Your task to perform on an android device: check android version Image 0: 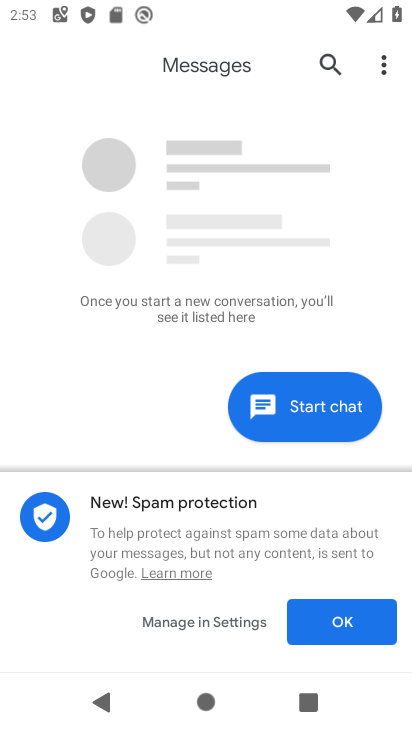
Step 0: press home button
Your task to perform on an android device: check android version Image 1: 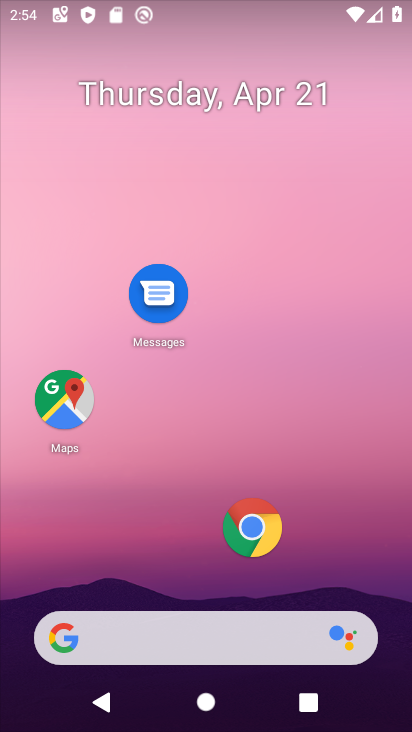
Step 1: drag from (222, 576) to (267, 293)
Your task to perform on an android device: check android version Image 2: 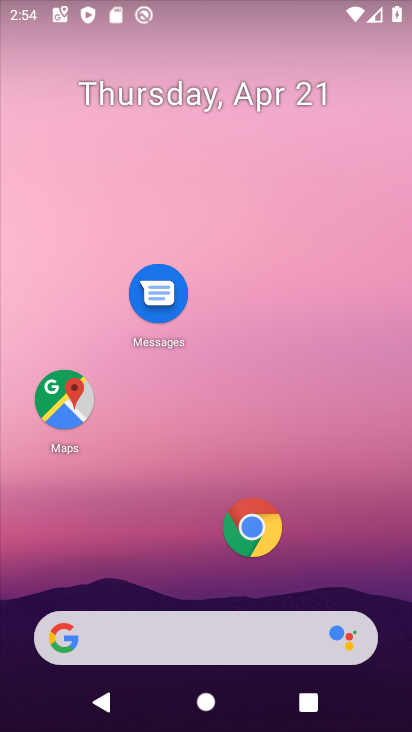
Step 2: drag from (207, 612) to (288, 258)
Your task to perform on an android device: check android version Image 3: 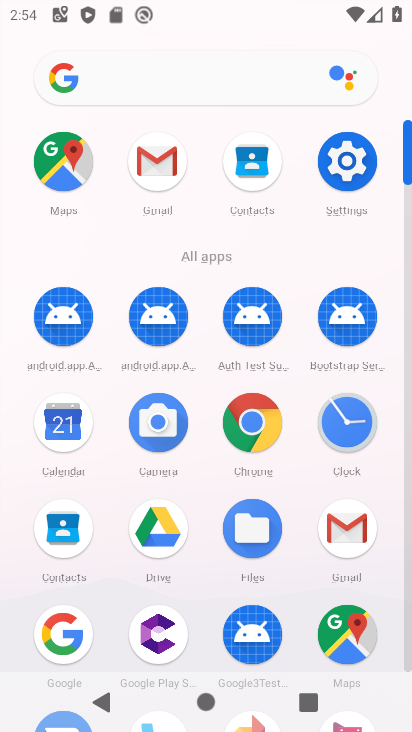
Step 3: click (352, 164)
Your task to perform on an android device: check android version Image 4: 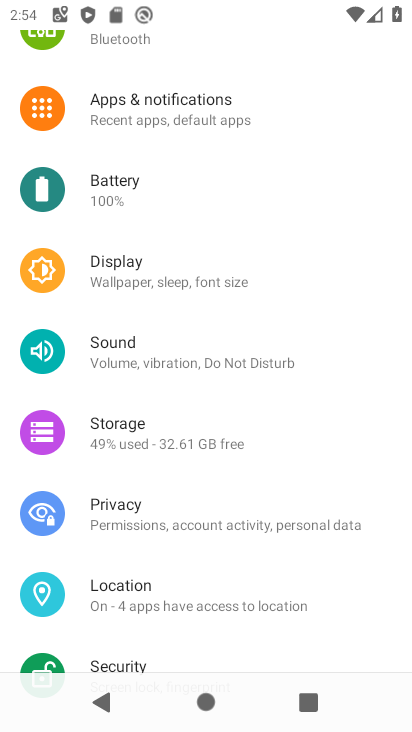
Step 4: drag from (163, 653) to (211, 343)
Your task to perform on an android device: check android version Image 5: 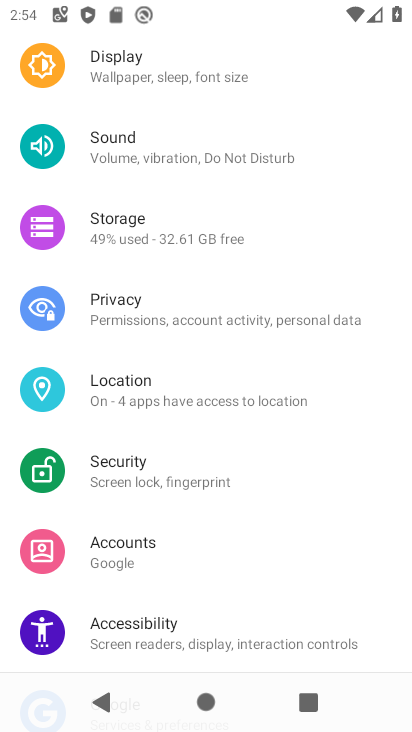
Step 5: drag from (193, 593) to (231, 377)
Your task to perform on an android device: check android version Image 6: 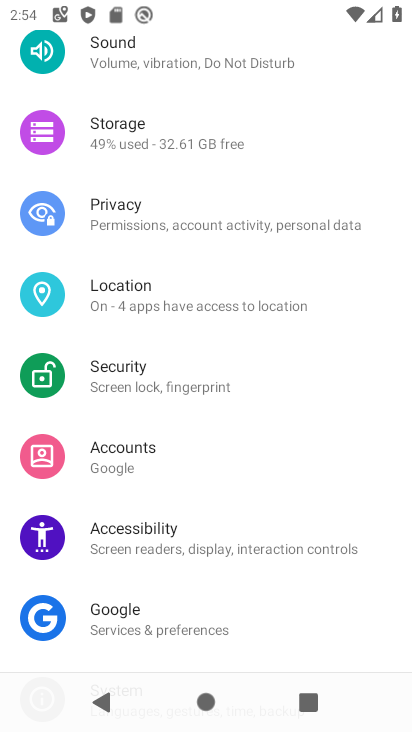
Step 6: drag from (168, 634) to (193, 419)
Your task to perform on an android device: check android version Image 7: 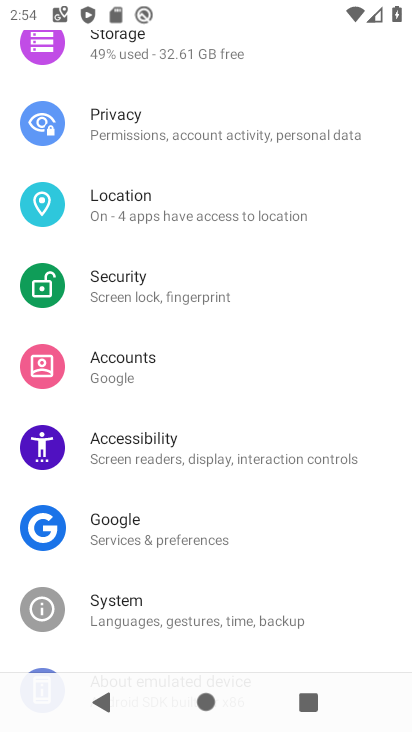
Step 7: drag from (179, 555) to (226, 393)
Your task to perform on an android device: check android version Image 8: 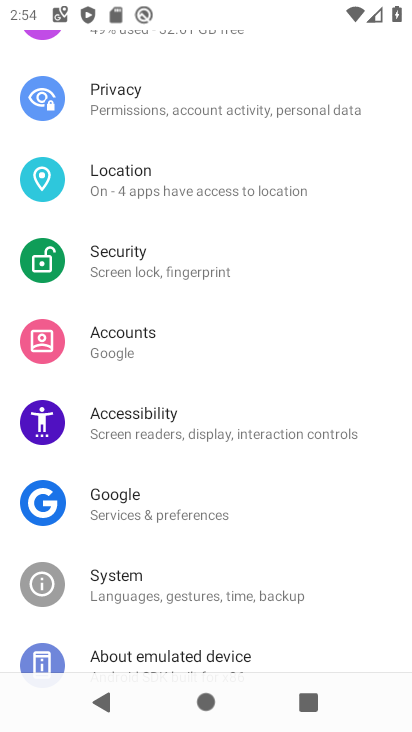
Step 8: click (171, 655)
Your task to perform on an android device: check android version Image 9: 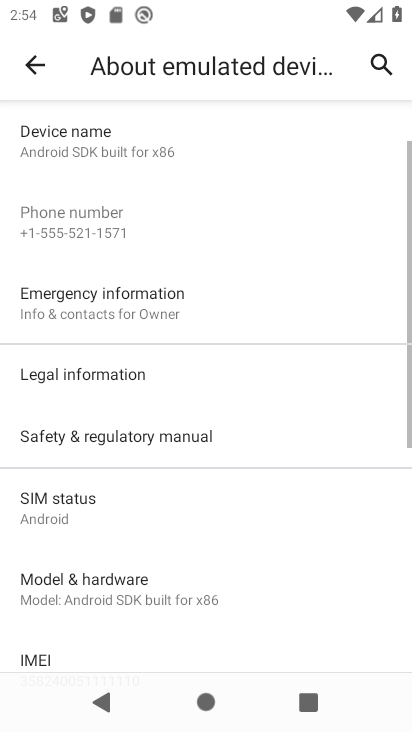
Step 9: drag from (84, 589) to (107, 326)
Your task to perform on an android device: check android version Image 10: 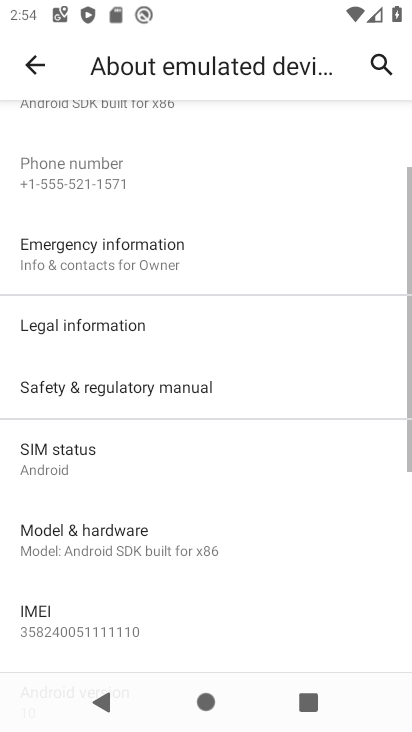
Step 10: drag from (64, 566) to (87, 303)
Your task to perform on an android device: check android version Image 11: 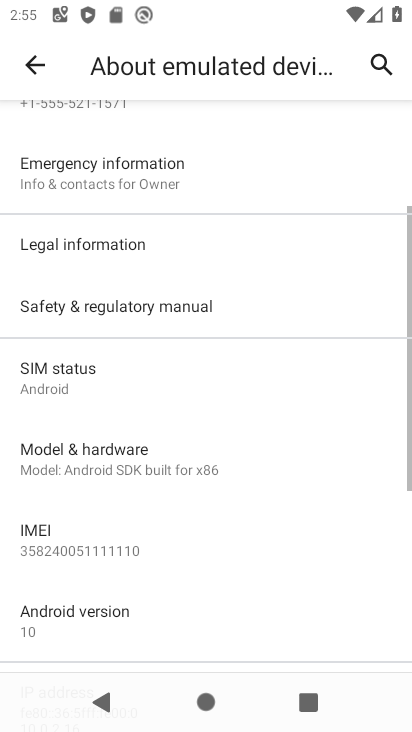
Step 11: click (59, 615)
Your task to perform on an android device: check android version Image 12: 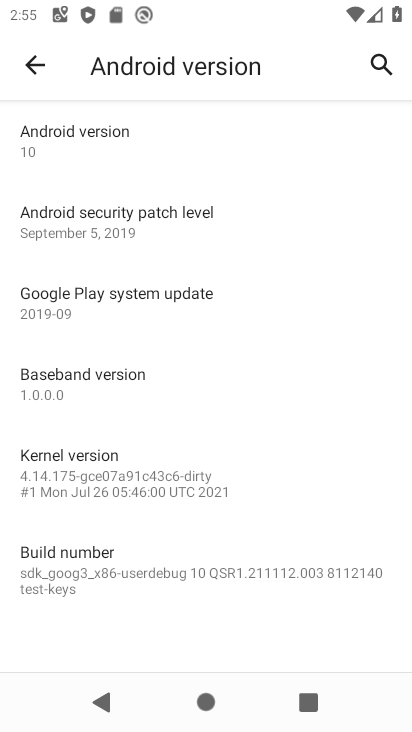
Step 12: task complete